Your task to perform on an android device: Go to internet settings Image 0: 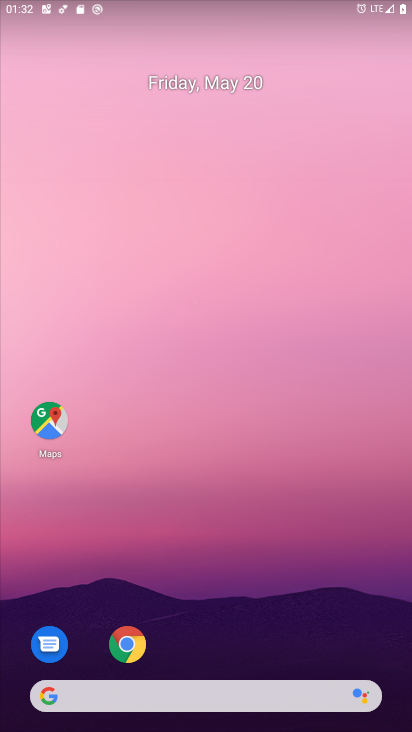
Step 0: drag from (192, 678) to (226, 391)
Your task to perform on an android device: Go to internet settings Image 1: 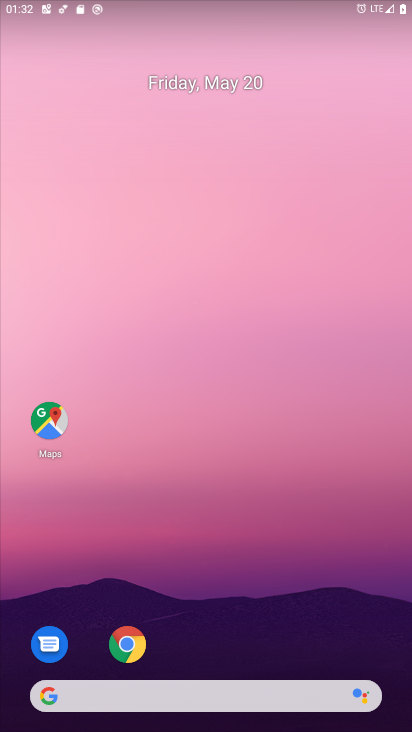
Step 1: drag from (244, 682) to (267, 266)
Your task to perform on an android device: Go to internet settings Image 2: 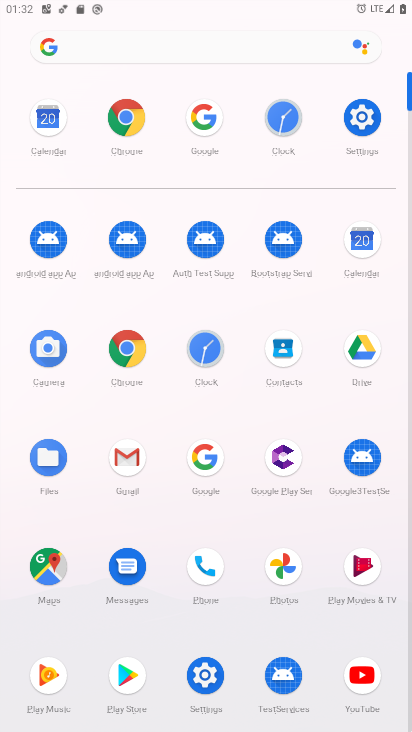
Step 2: click (373, 116)
Your task to perform on an android device: Go to internet settings Image 3: 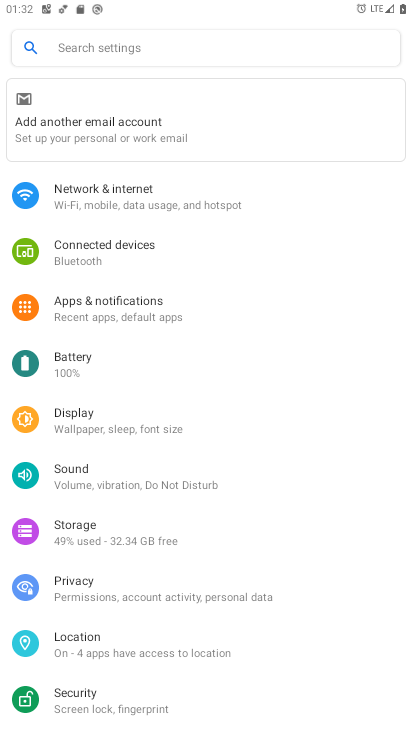
Step 3: click (68, 208)
Your task to perform on an android device: Go to internet settings Image 4: 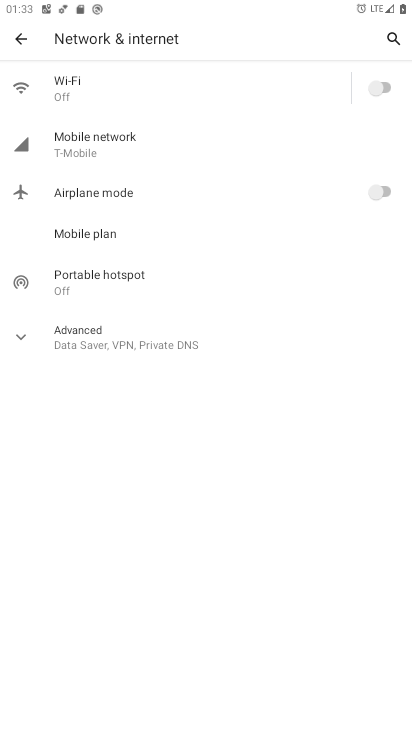
Step 4: click (106, 343)
Your task to perform on an android device: Go to internet settings Image 5: 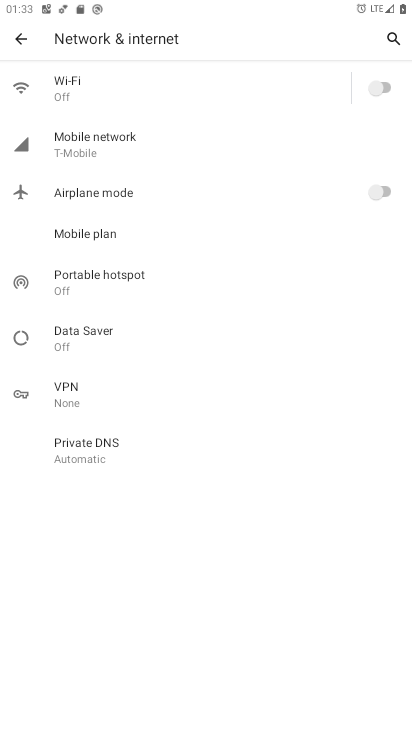
Step 5: task complete